Your task to perform on an android device: toggle show notifications on the lock screen Image 0: 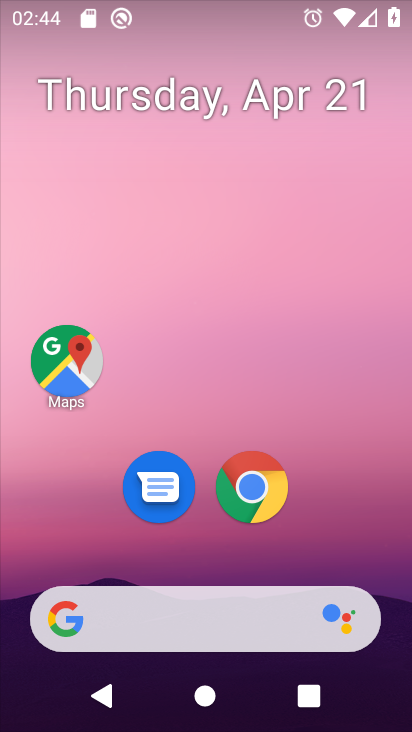
Step 0: drag from (200, 563) to (288, 129)
Your task to perform on an android device: toggle show notifications on the lock screen Image 1: 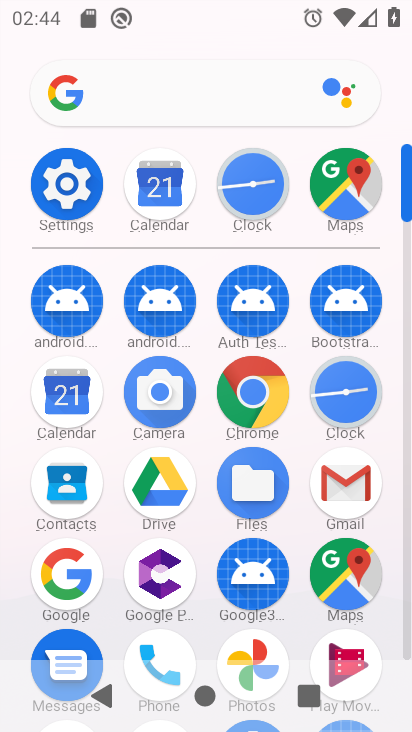
Step 1: click (67, 192)
Your task to perform on an android device: toggle show notifications on the lock screen Image 2: 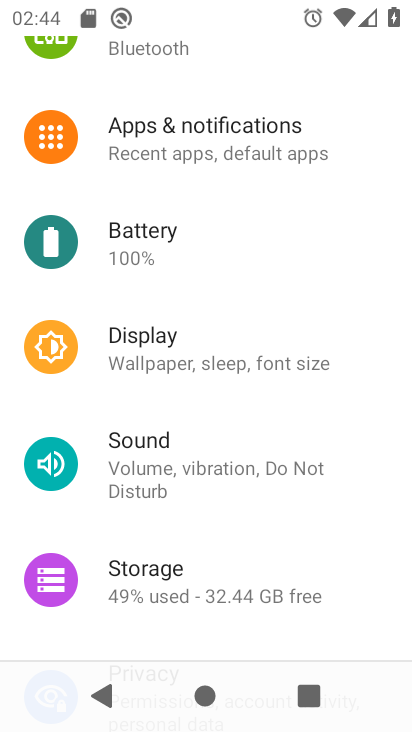
Step 2: drag from (179, 564) to (348, 156)
Your task to perform on an android device: toggle show notifications on the lock screen Image 3: 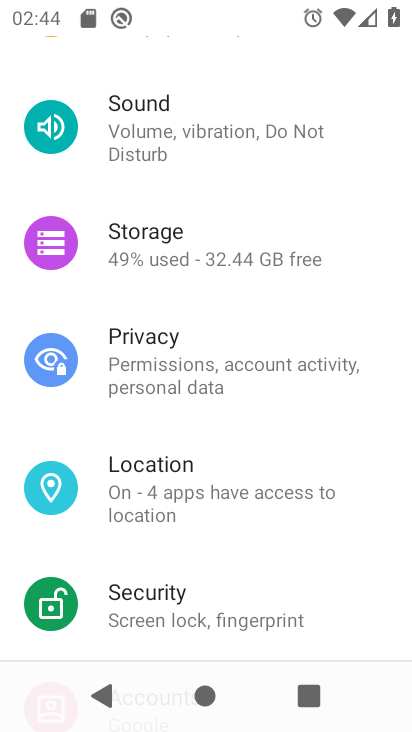
Step 3: drag from (203, 198) to (297, 671)
Your task to perform on an android device: toggle show notifications on the lock screen Image 4: 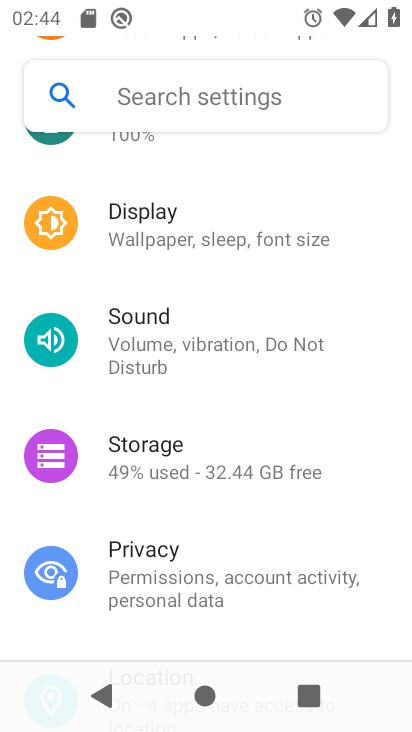
Step 4: drag from (250, 222) to (263, 698)
Your task to perform on an android device: toggle show notifications on the lock screen Image 5: 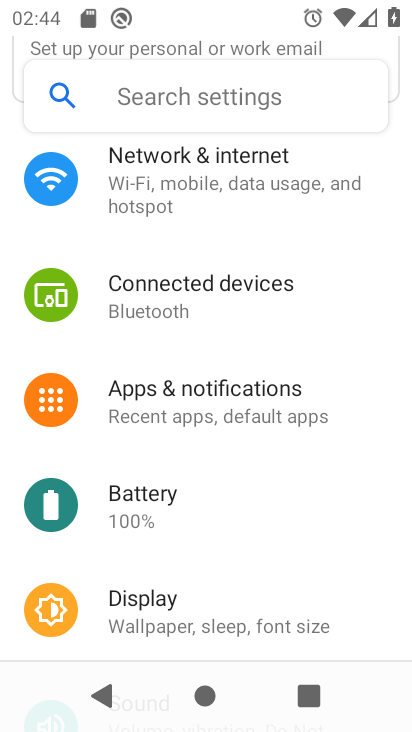
Step 5: click (192, 401)
Your task to perform on an android device: toggle show notifications on the lock screen Image 6: 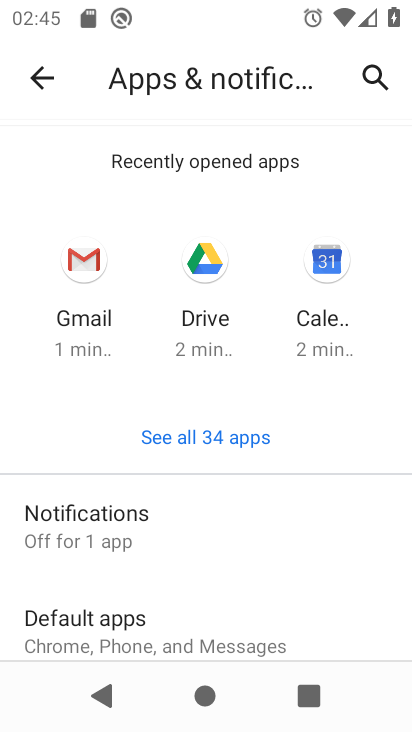
Step 6: click (147, 523)
Your task to perform on an android device: toggle show notifications on the lock screen Image 7: 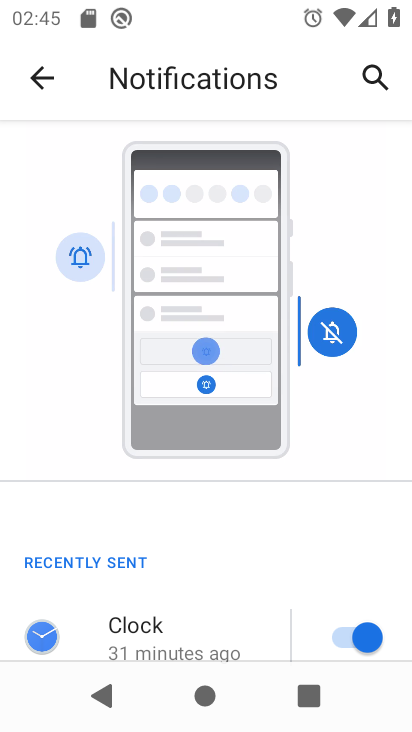
Step 7: drag from (203, 602) to (388, 439)
Your task to perform on an android device: toggle show notifications on the lock screen Image 8: 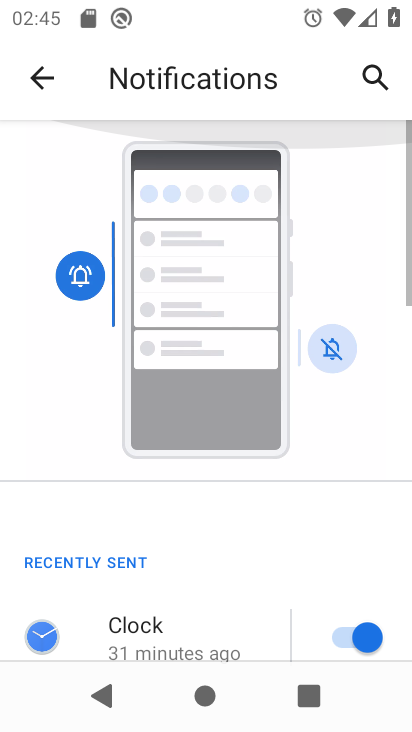
Step 8: drag from (235, 602) to (326, 92)
Your task to perform on an android device: toggle show notifications on the lock screen Image 9: 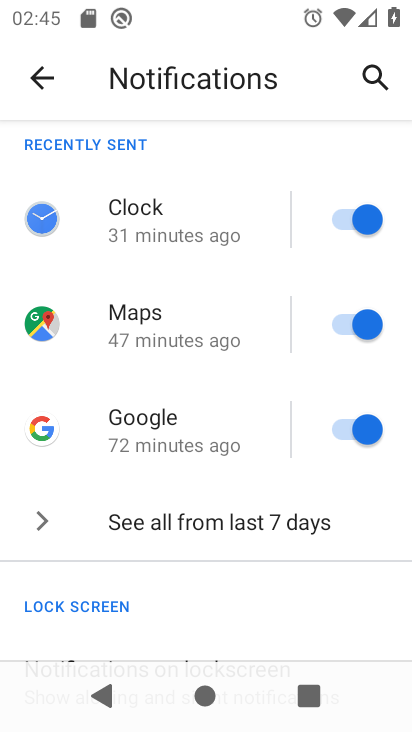
Step 9: drag from (194, 581) to (282, 253)
Your task to perform on an android device: toggle show notifications on the lock screen Image 10: 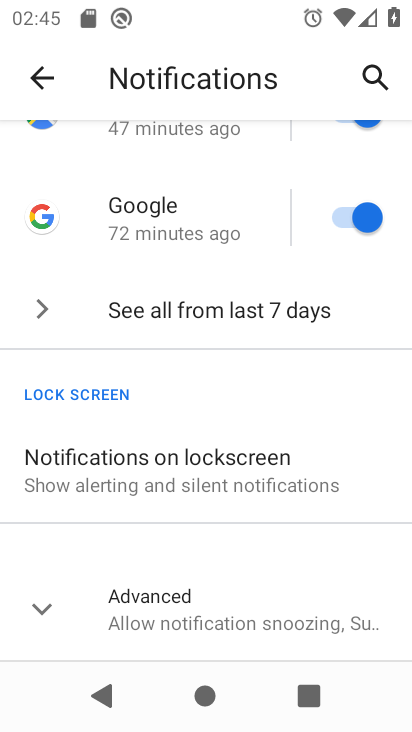
Step 10: click (199, 482)
Your task to perform on an android device: toggle show notifications on the lock screen Image 11: 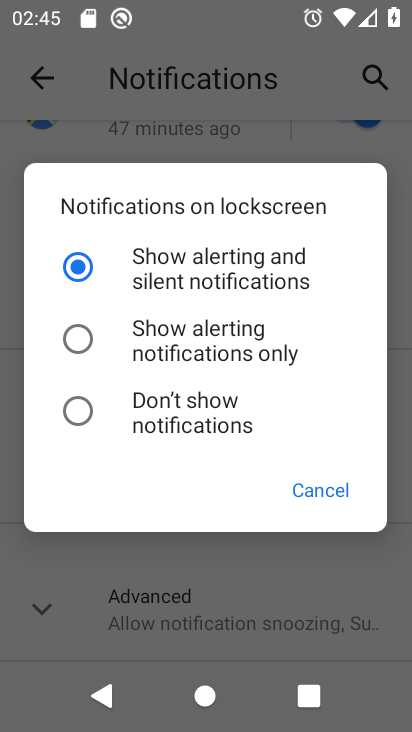
Step 11: click (186, 331)
Your task to perform on an android device: toggle show notifications on the lock screen Image 12: 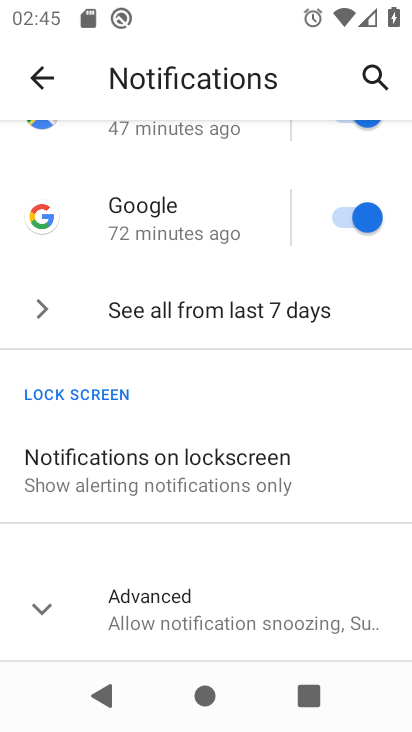
Step 12: drag from (110, 558) to (338, 175)
Your task to perform on an android device: toggle show notifications on the lock screen Image 13: 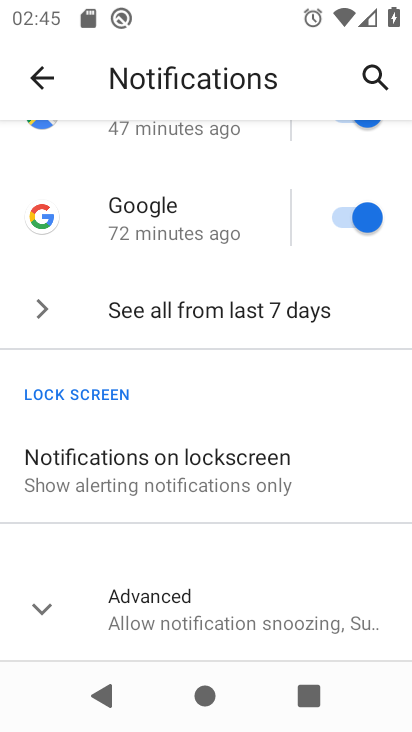
Step 13: click (191, 469)
Your task to perform on an android device: toggle show notifications on the lock screen Image 14: 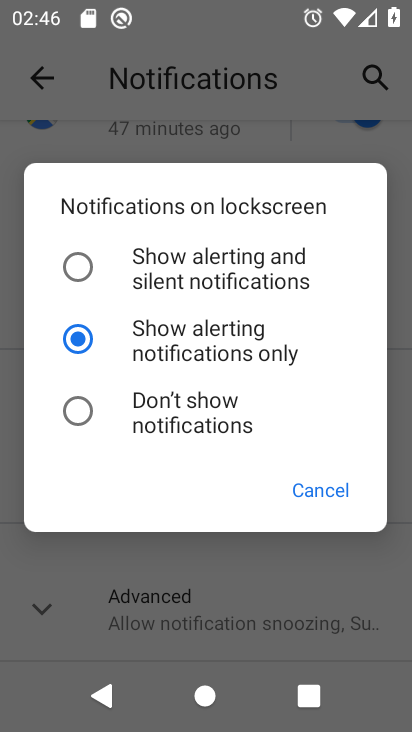
Step 14: click (211, 350)
Your task to perform on an android device: toggle show notifications on the lock screen Image 15: 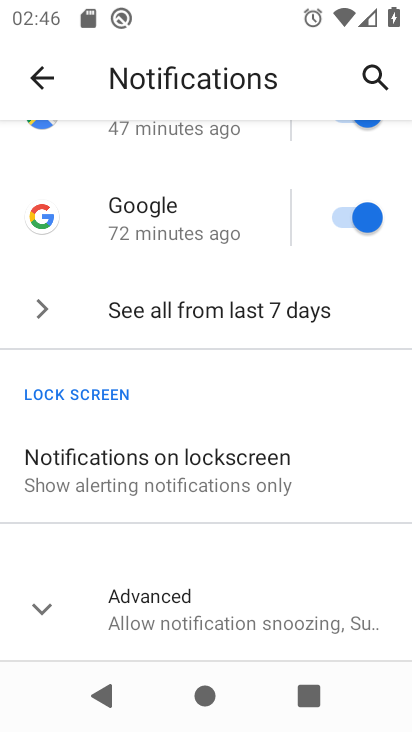
Step 15: task complete